Your task to perform on an android device: manage bookmarks in the chrome app Image 0: 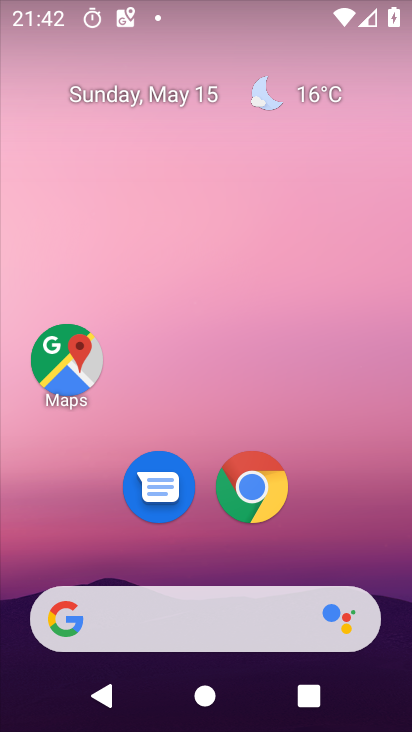
Step 0: click (250, 480)
Your task to perform on an android device: manage bookmarks in the chrome app Image 1: 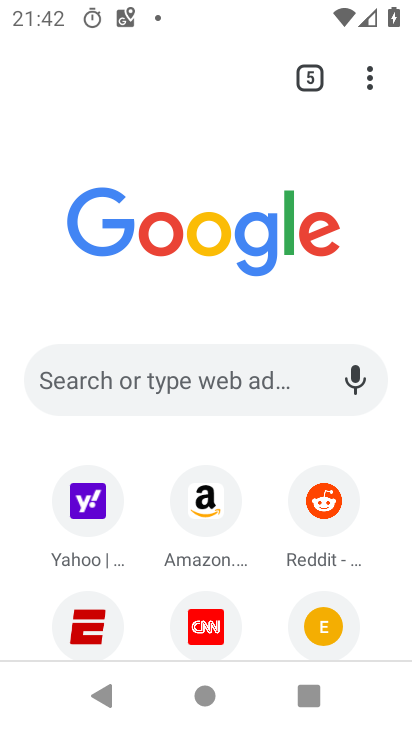
Step 1: click (368, 70)
Your task to perform on an android device: manage bookmarks in the chrome app Image 2: 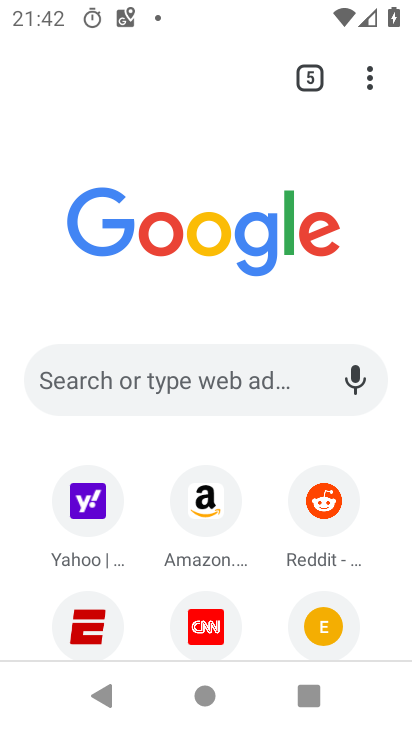
Step 2: click (366, 72)
Your task to perform on an android device: manage bookmarks in the chrome app Image 3: 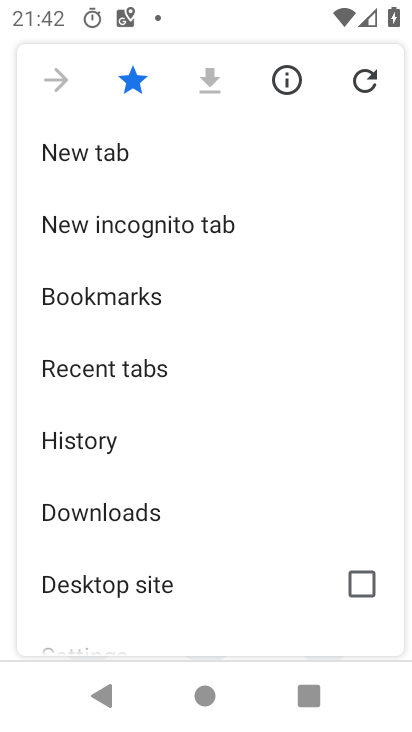
Step 3: click (109, 284)
Your task to perform on an android device: manage bookmarks in the chrome app Image 4: 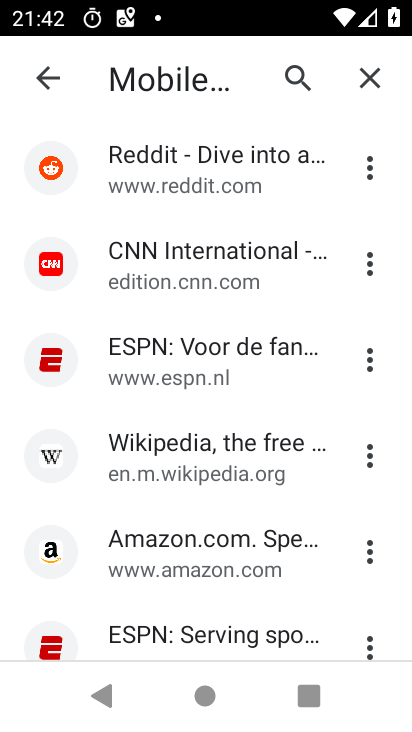
Step 4: click (371, 359)
Your task to perform on an android device: manage bookmarks in the chrome app Image 5: 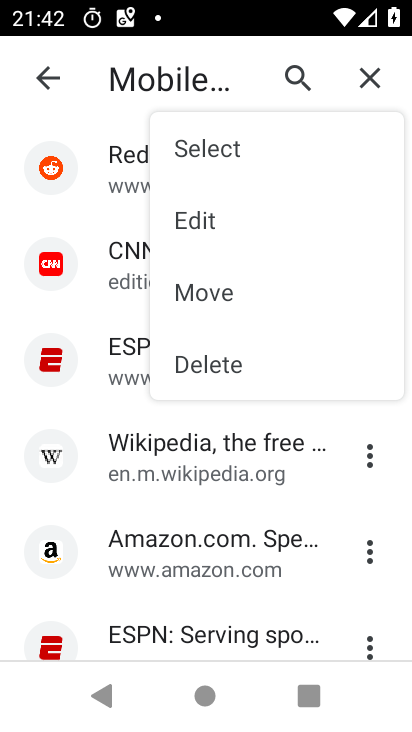
Step 5: click (211, 365)
Your task to perform on an android device: manage bookmarks in the chrome app Image 6: 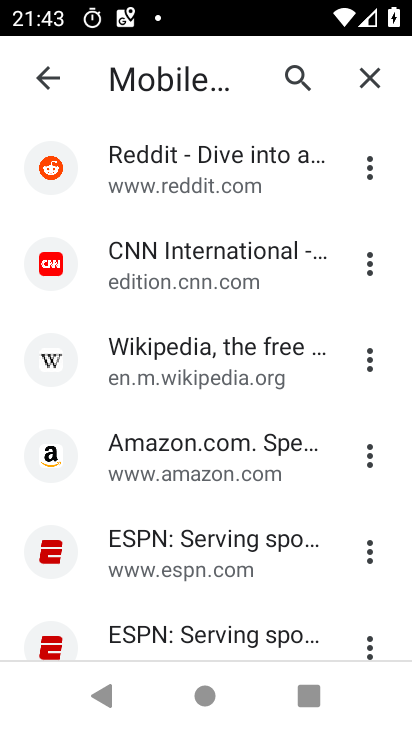
Step 6: task complete